Your task to perform on an android device: Go to ESPN.com Image 0: 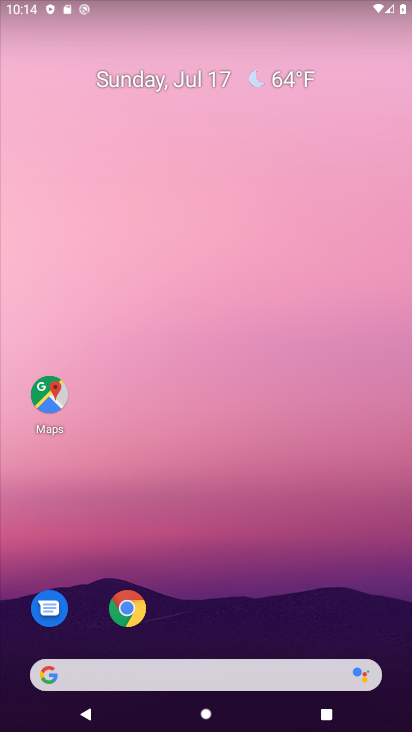
Step 0: click (121, 608)
Your task to perform on an android device: Go to ESPN.com Image 1: 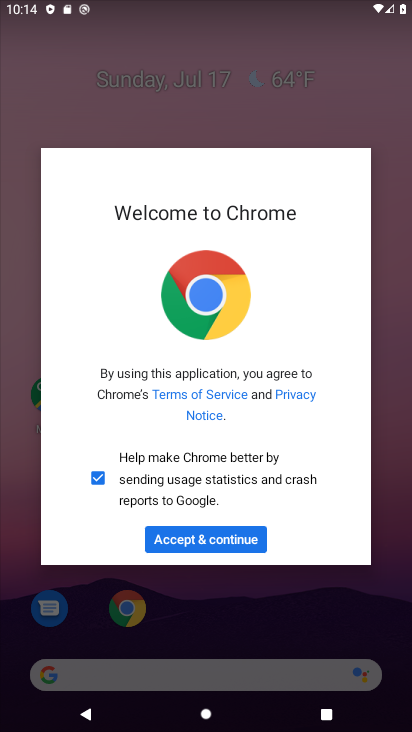
Step 1: click (217, 530)
Your task to perform on an android device: Go to ESPN.com Image 2: 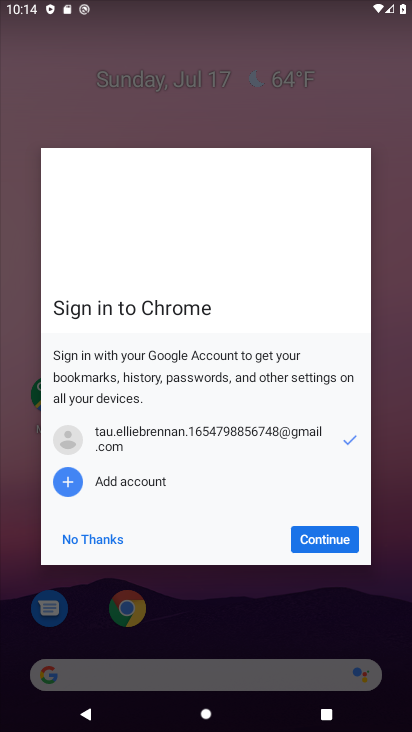
Step 2: click (313, 532)
Your task to perform on an android device: Go to ESPN.com Image 3: 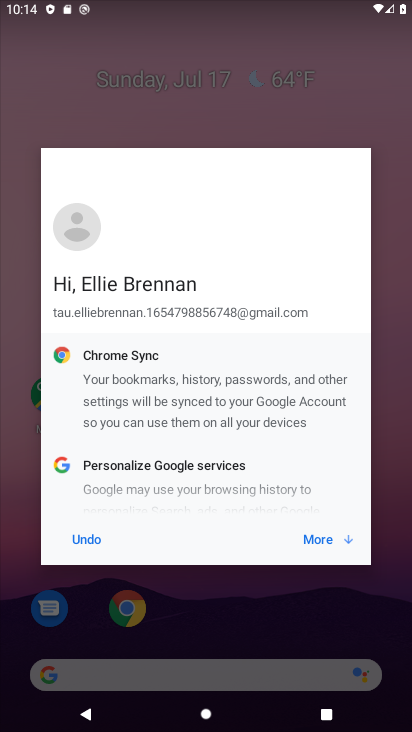
Step 3: click (332, 548)
Your task to perform on an android device: Go to ESPN.com Image 4: 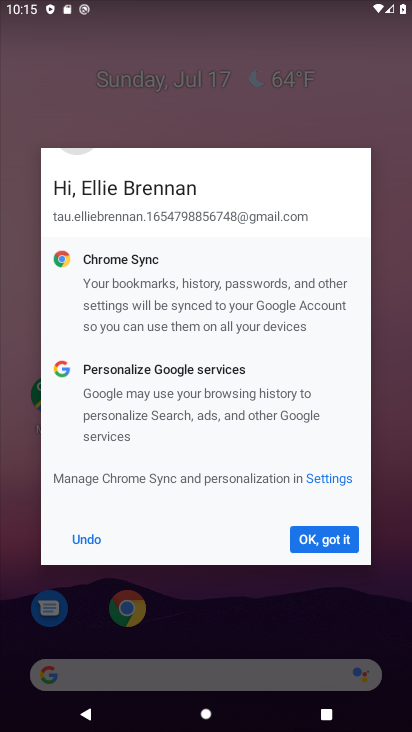
Step 4: click (328, 544)
Your task to perform on an android device: Go to ESPN.com Image 5: 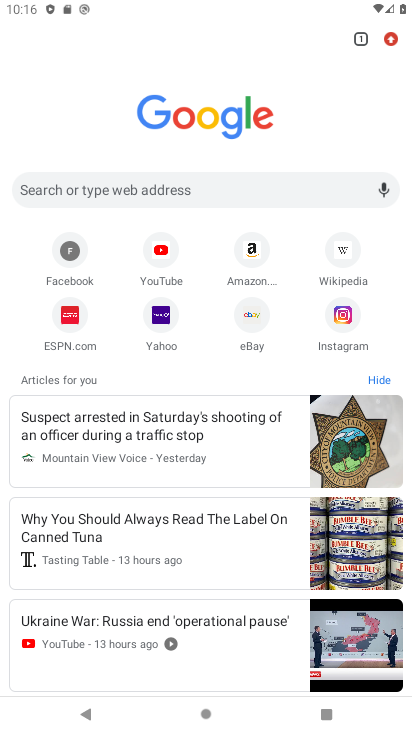
Step 5: click (207, 201)
Your task to perform on an android device: Go to ESPN.com Image 6: 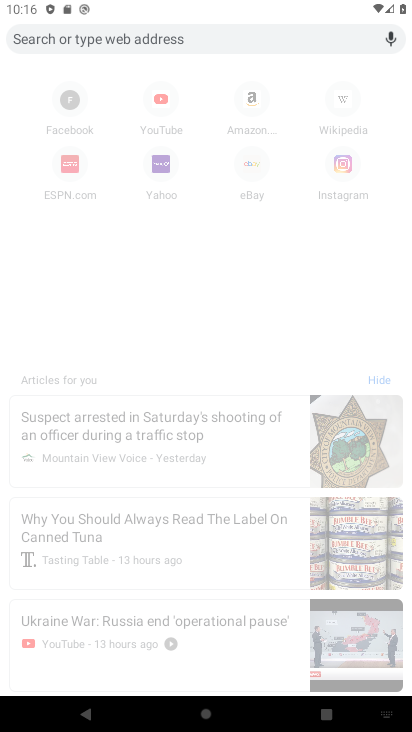
Step 6: type "ESPN.com"
Your task to perform on an android device: Go to ESPN.com Image 7: 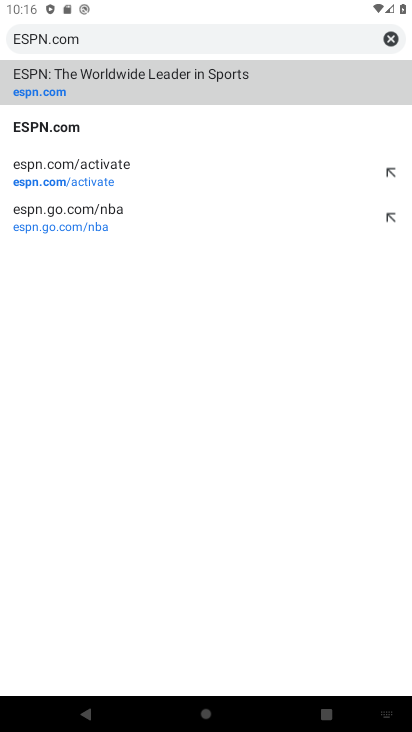
Step 7: click (61, 124)
Your task to perform on an android device: Go to ESPN.com Image 8: 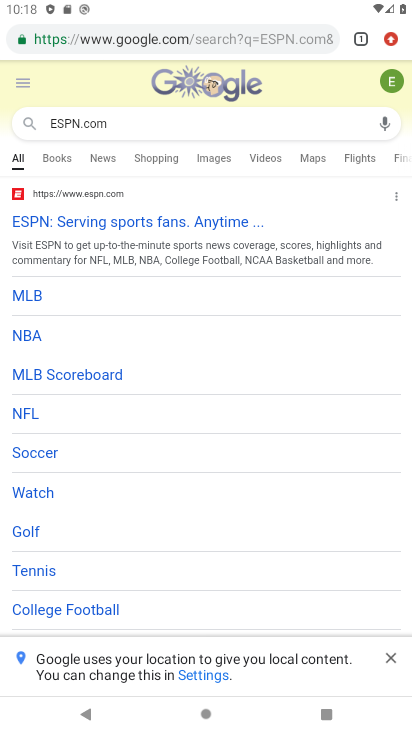
Step 8: task complete